Your task to perform on an android device: Open maps Image 0: 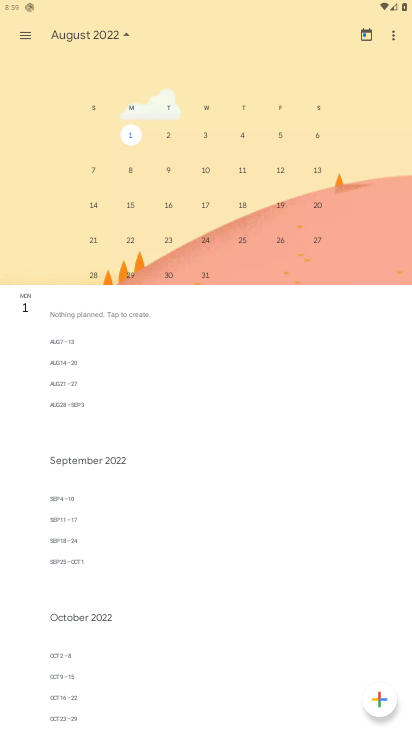
Step 0: press home button
Your task to perform on an android device: Open maps Image 1: 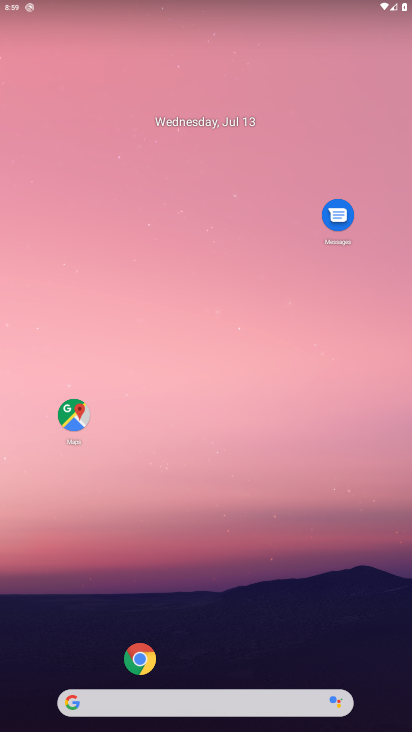
Step 1: click (66, 417)
Your task to perform on an android device: Open maps Image 2: 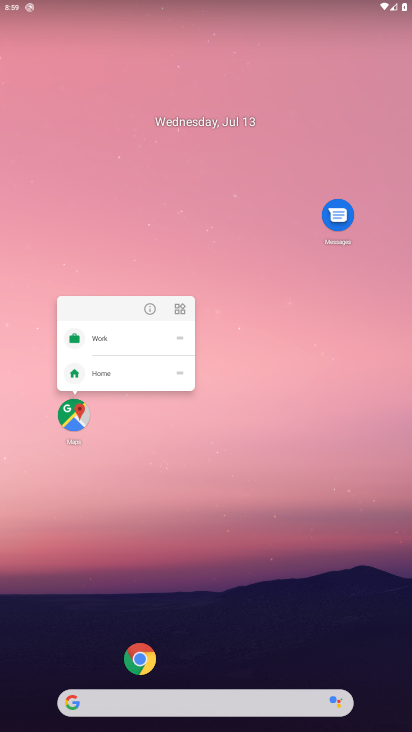
Step 2: click (68, 429)
Your task to perform on an android device: Open maps Image 3: 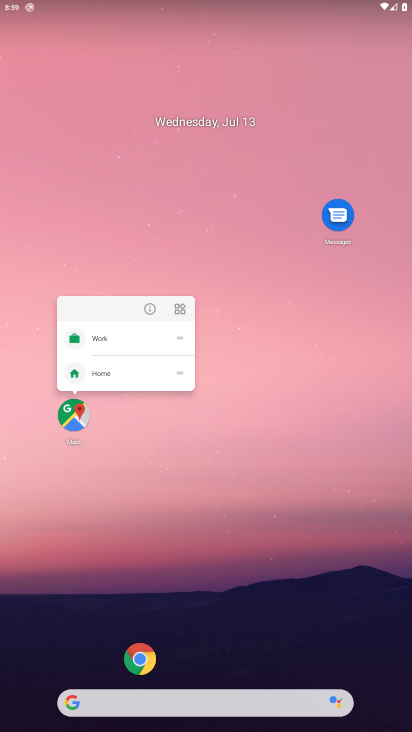
Step 3: click (65, 428)
Your task to perform on an android device: Open maps Image 4: 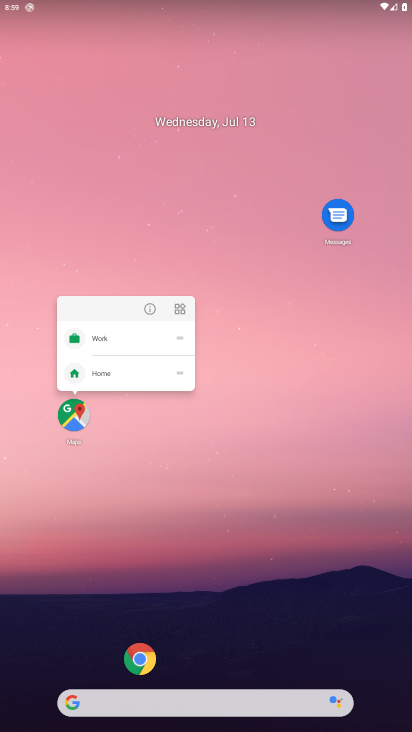
Step 4: click (65, 421)
Your task to perform on an android device: Open maps Image 5: 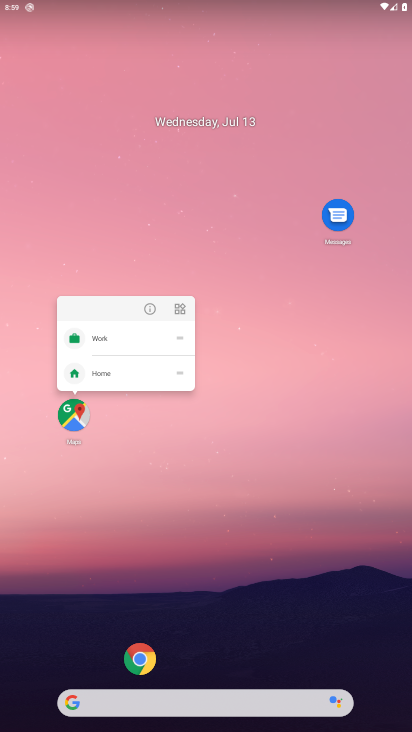
Step 5: click (102, 396)
Your task to perform on an android device: Open maps Image 6: 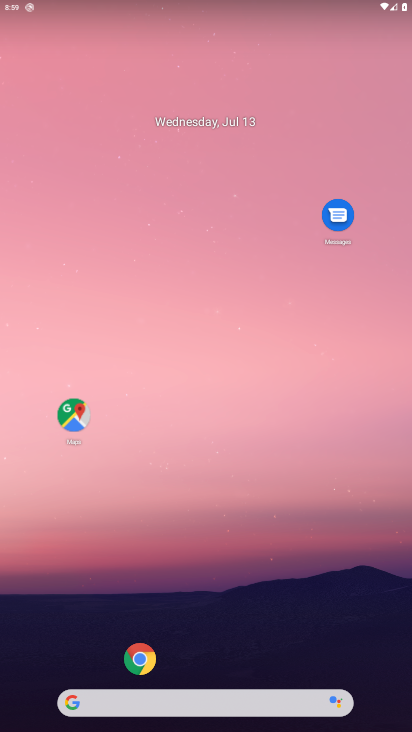
Step 6: click (75, 409)
Your task to perform on an android device: Open maps Image 7: 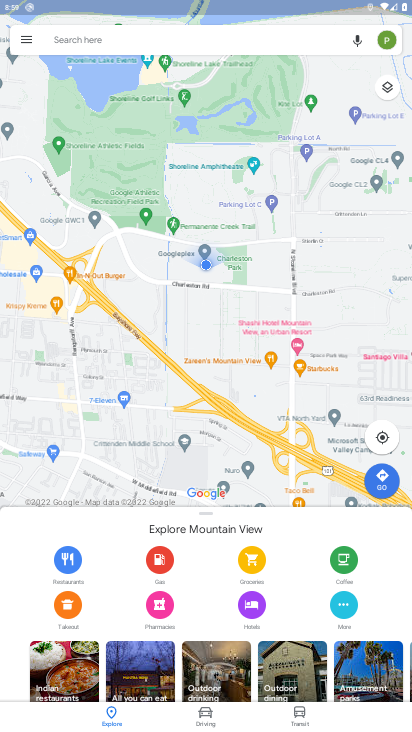
Step 7: task complete